Your task to perform on an android device: Set the phone to "Do not disturb". Image 0: 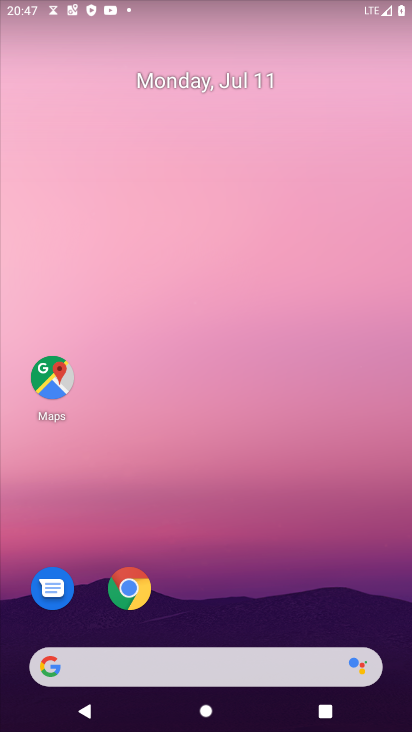
Step 0: drag from (210, 6) to (255, 616)
Your task to perform on an android device: Set the phone to "Do not disturb". Image 1: 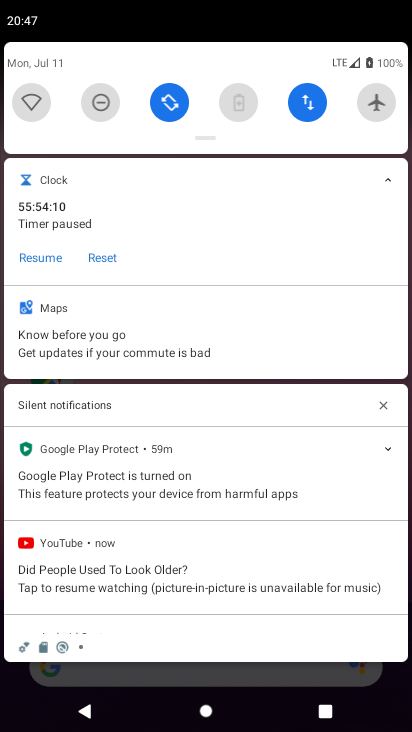
Step 1: click (103, 109)
Your task to perform on an android device: Set the phone to "Do not disturb". Image 2: 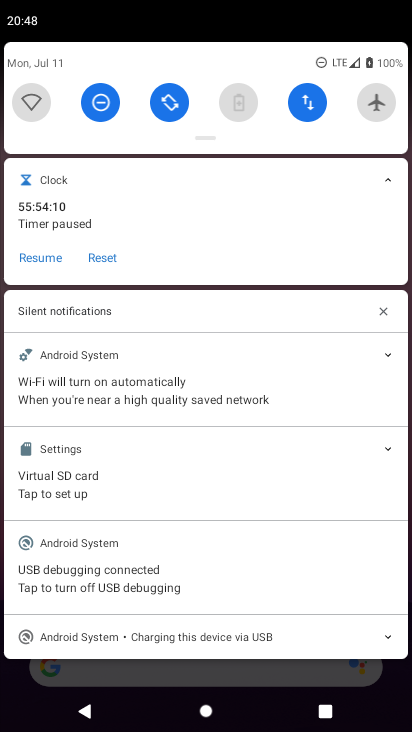
Step 2: task complete